Your task to perform on an android device: delete browsing data in the chrome app Image 0: 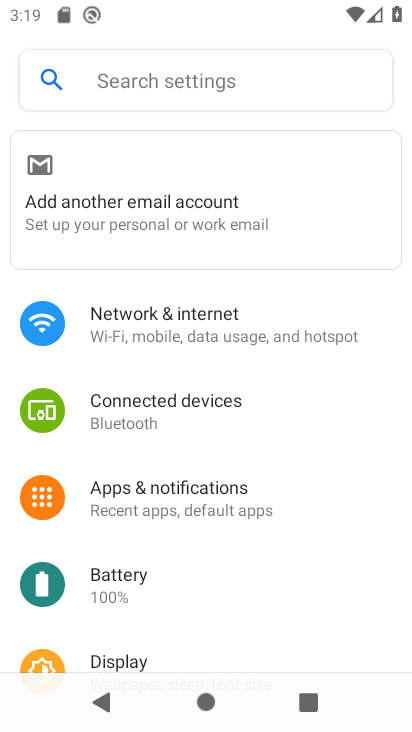
Step 0: press home button
Your task to perform on an android device: delete browsing data in the chrome app Image 1: 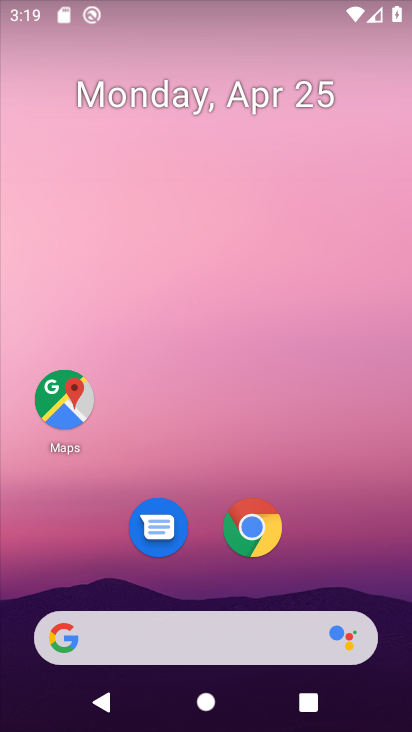
Step 1: click (251, 528)
Your task to perform on an android device: delete browsing data in the chrome app Image 2: 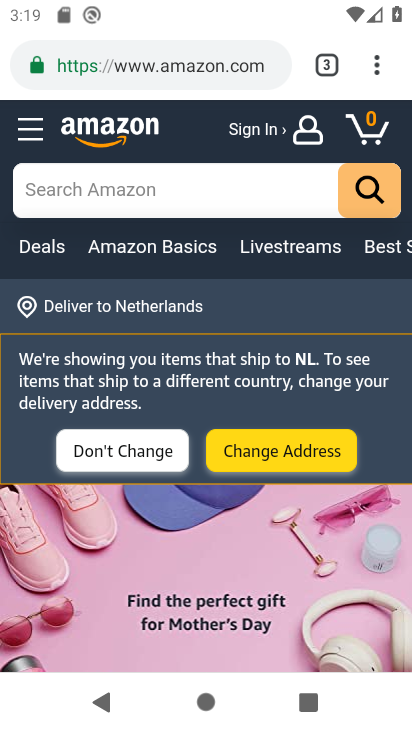
Step 2: click (375, 71)
Your task to perform on an android device: delete browsing data in the chrome app Image 3: 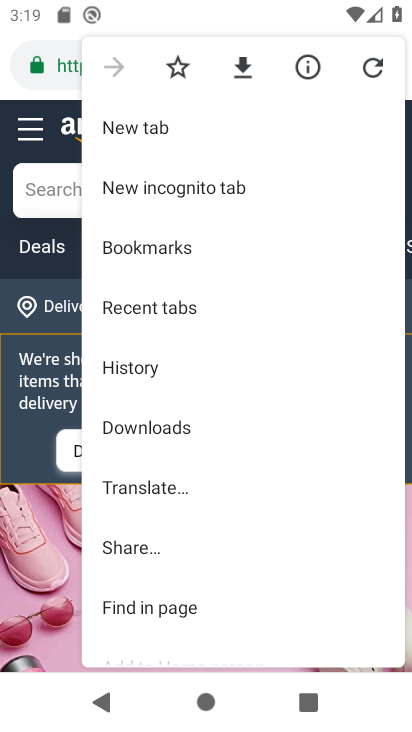
Step 3: click (135, 359)
Your task to perform on an android device: delete browsing data in the chrome app Image 4: 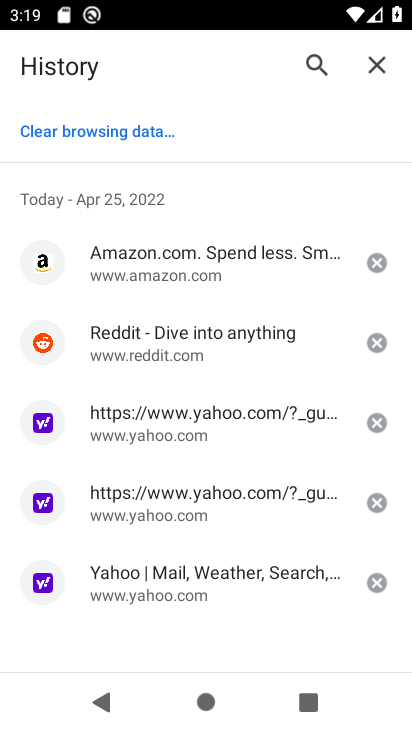
Step 4: click (94, 132)
Your task to perform on an android device: delete browsing data in the chrome app Image 5: 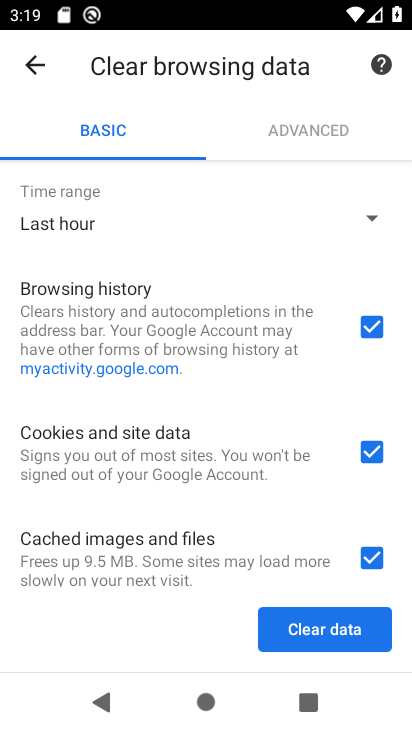
Step 5: click (367, 449)
Your task to perform on an android device: delete browsing data in the chrome app Image 6: 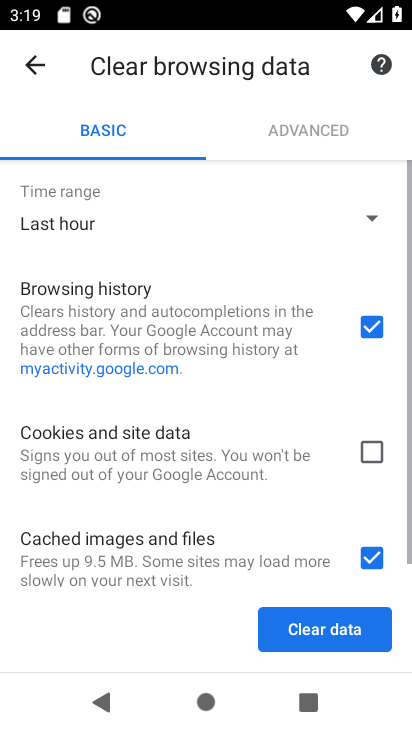
Step 6: click (374, 555)
Your task to perform on an android device: delete browsing data in the chrome app Image 7: 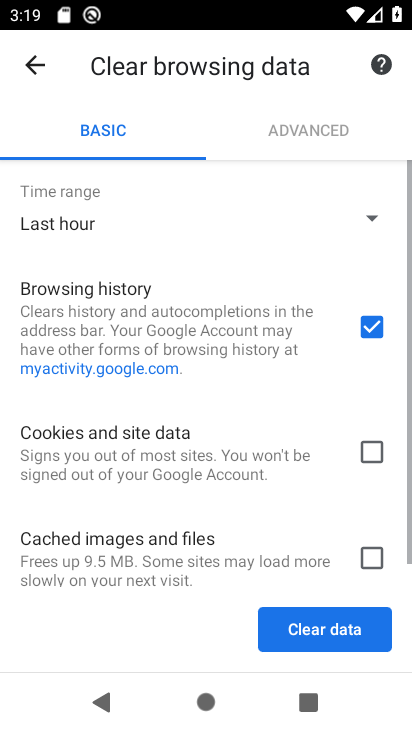
Step 7: drag from (276, 572) to (282, 422)
Your task to perform on an android device: delete browsing data in the chrome app Image 8: 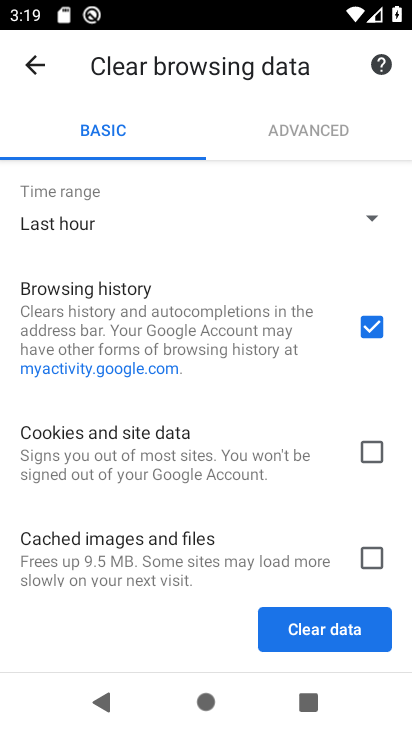
Step 8: click (320, 626)
Your task to perform on an android device: delete browsing data in the chrome app Image 9: 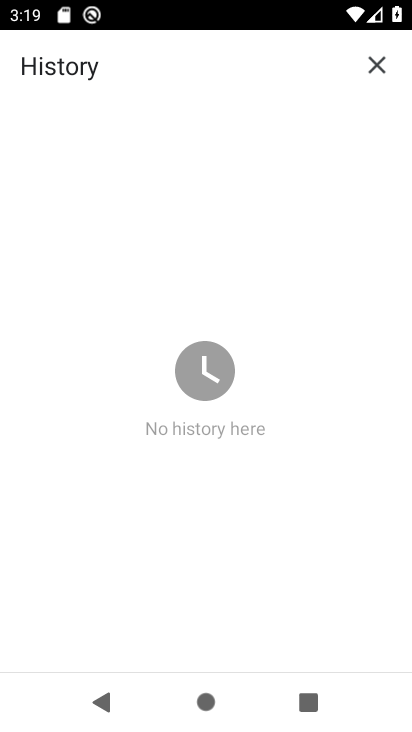
Step 9: task complete